Your task to perform on an android device: Open accessibility settings Image 0: 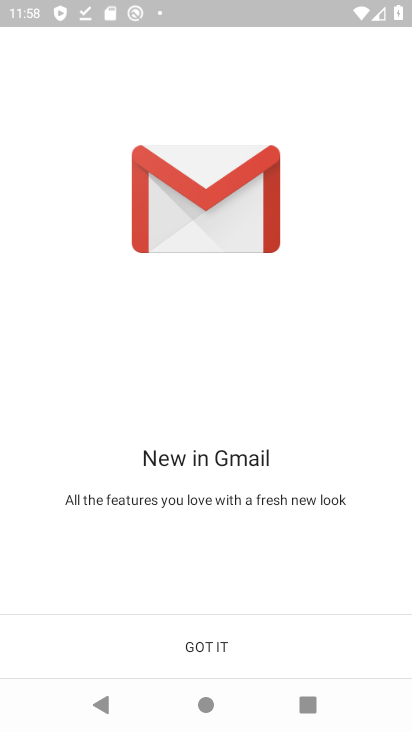
Step 0: press back button
Your task to perform on an android device: Open accessibility settings Image 1: 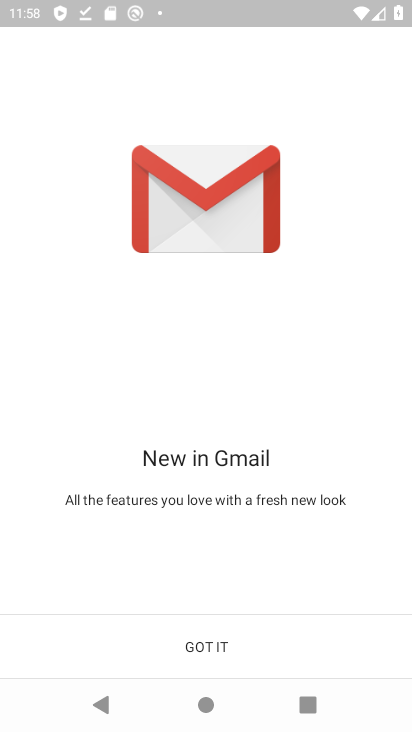
Step 1: press back button
Your task to perform on an android device: Open accessibility settings Image 2: 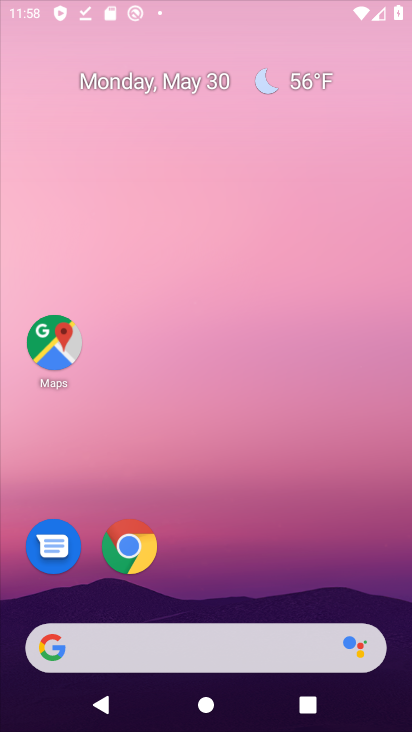
Step 2: press home button
Your task to perform on an android device: Open accessibility settings Image 3: 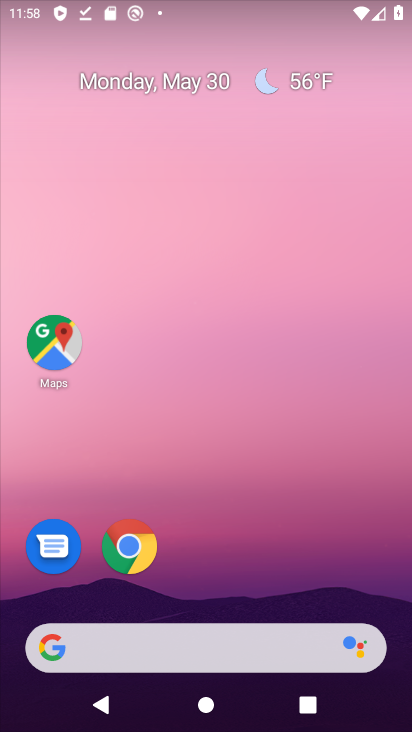
Step 3: press home button
Your task to perform on an android device: Open accessibility settings Image 4: 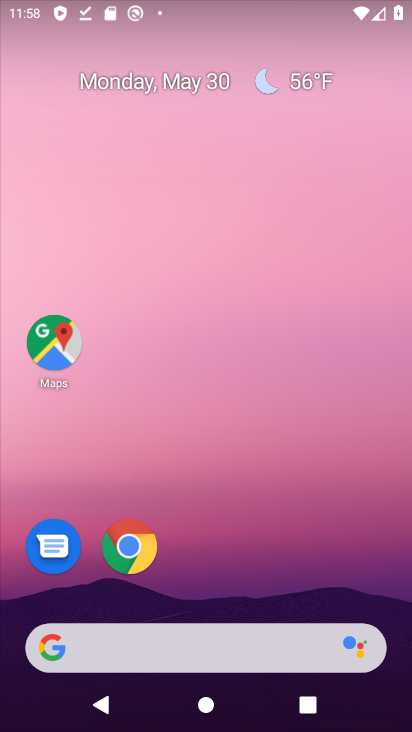
Step 4: press home button
Your task to perform on an android device: Open accessibility settings Image 5: 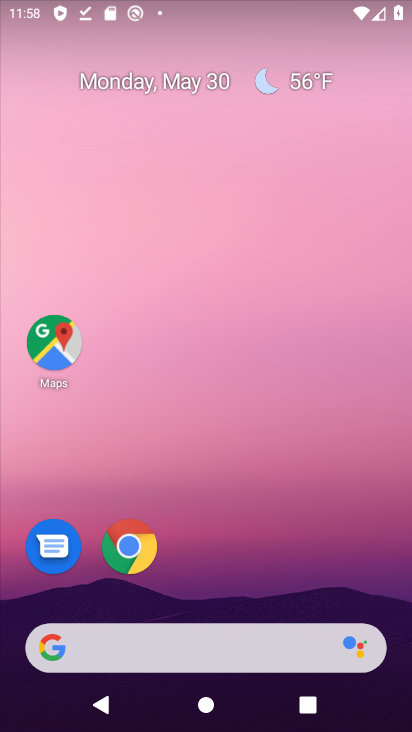
Step 5: press home button
Your task to perform on an android device: Open accessibility settings Image 6: 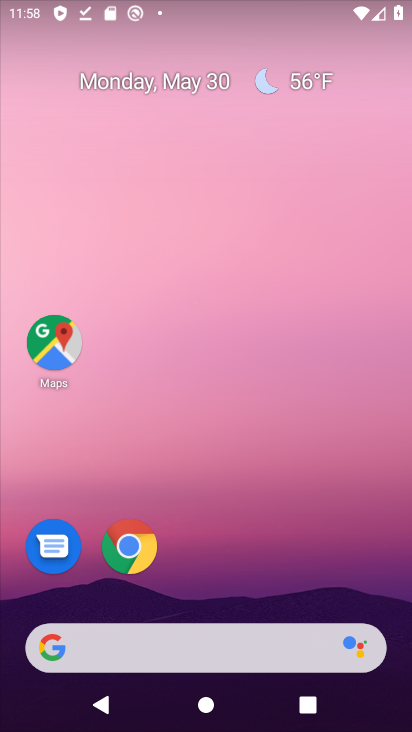
Step 6: press home button
Your task to perform on an android device: Open accessibility settings Image 7: 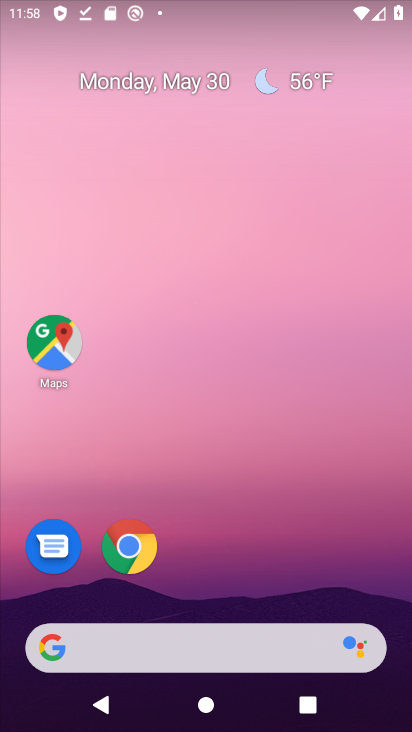
Step 7: press home button
Your task to perform on an android device: Open accessibility settings Image 8: 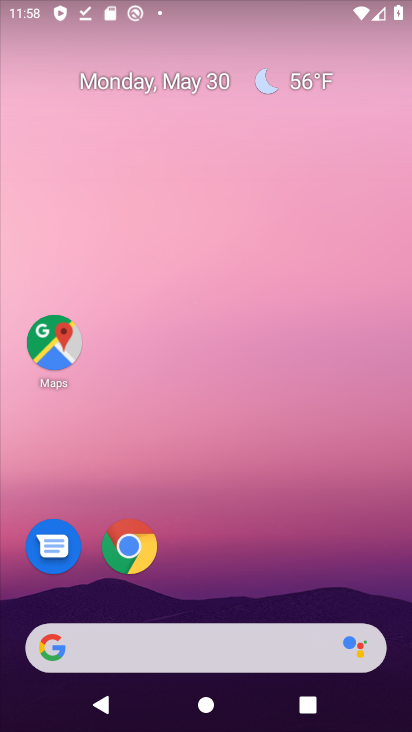
Step 8: press home button
Your task to perform on an android device: Open accessibility settings Image 9: 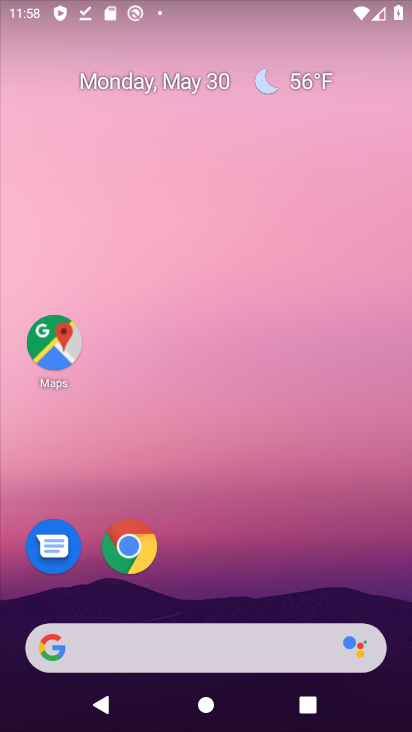
Step 9: press home button
Your task to perform on an android device: Open accessibility settings Image 10: 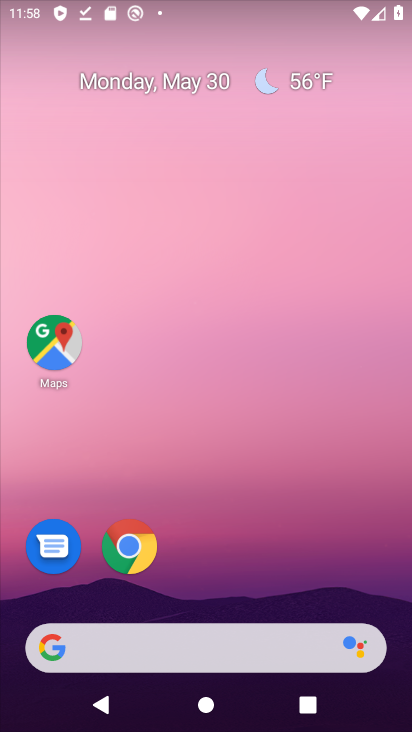
Step 10: drag from (269, 688) to (149, 83)
Your task to perform on an android device: Open accessibility settings Image 11: 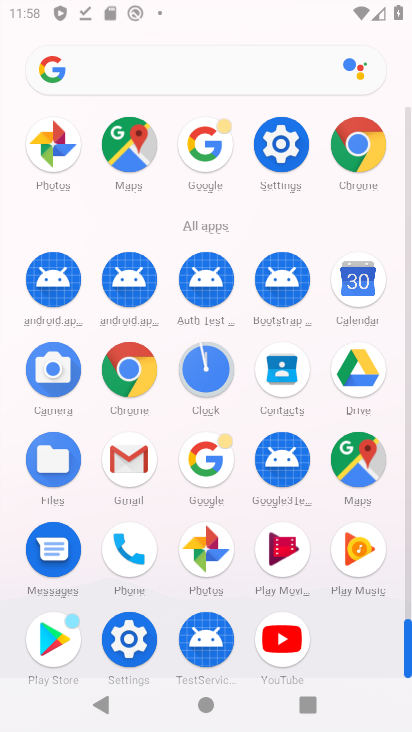
Step 11: drag from (272, 491) to (247, 76)
Your task to perform on an android device: Open accessibility settings Image 12: 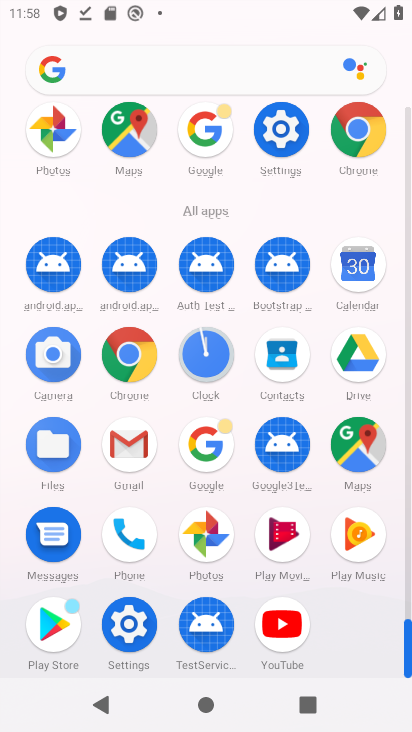
Step 12: click (287, 135)
Your task to perform on an android device: Open accessibility settings Image 13: 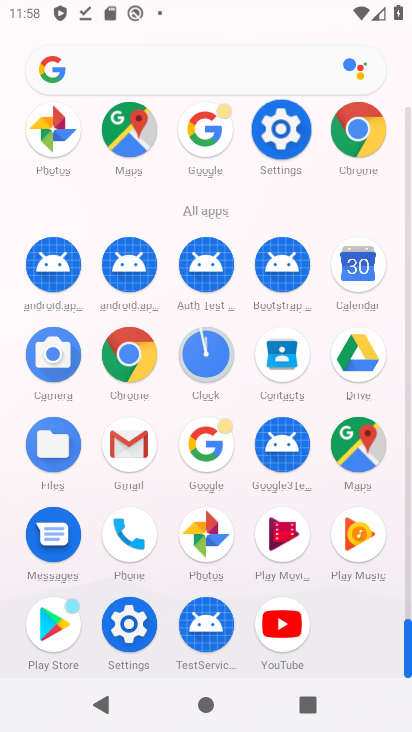
Step 13: click (287, 135)
Your task to perform on an android device: Open accessibility settings Image 14: 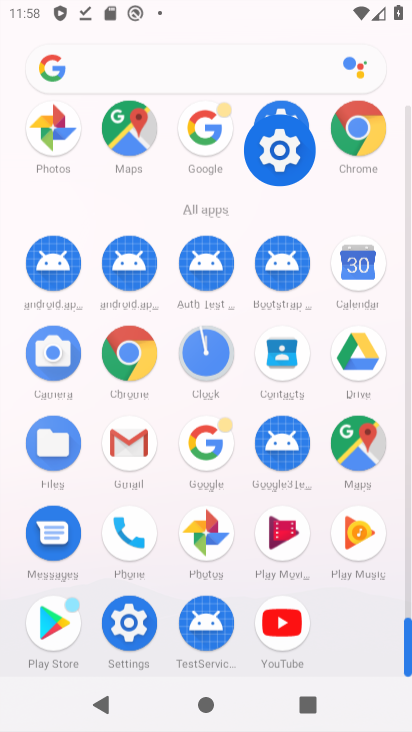
Step 14: click (288, 135)
Your task to perform on an android device: Open accessibility settings Image 15: 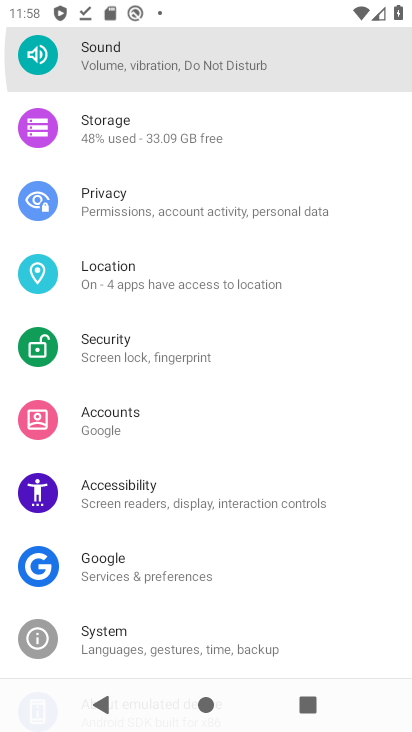
Step 15: click (288, 135)
Your task to perform on an android device: Open accessibility settings Image 16: 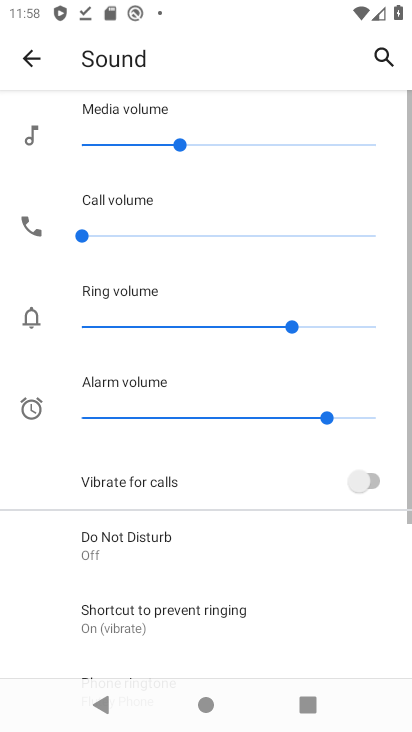
Step 16: click (27, 56)
Your task to perform on an android device: Open accessibility settings Image 17: 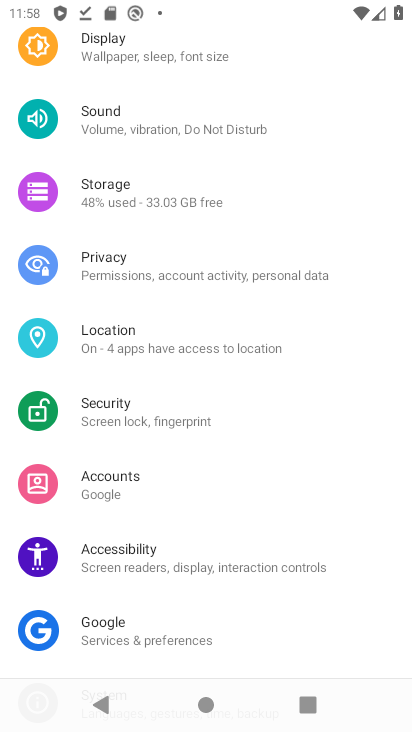
Step 17: click (111, 559)
Your task to perform on an android device: Open accessibility settings Image 18: 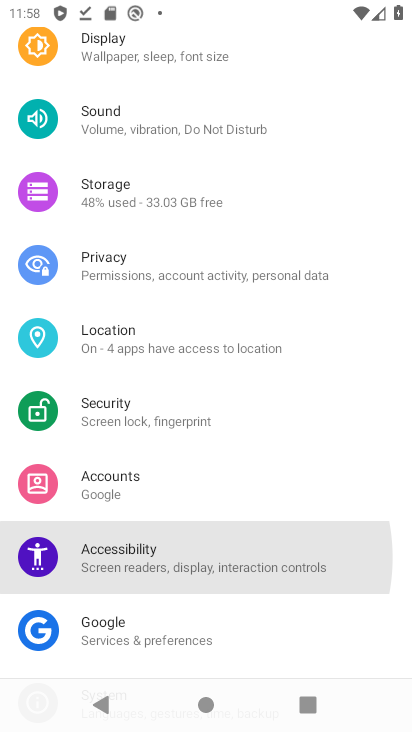
Step 18: click (111, 559)
Your task to perform on an android device: Open accessibility settings Image 19: 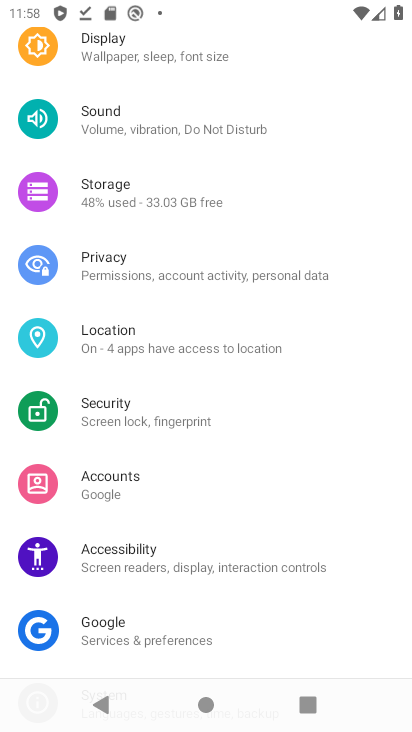
Step 19: click (107, 558)
Your task to perform on an android device: Open accessibility settings Image 20: 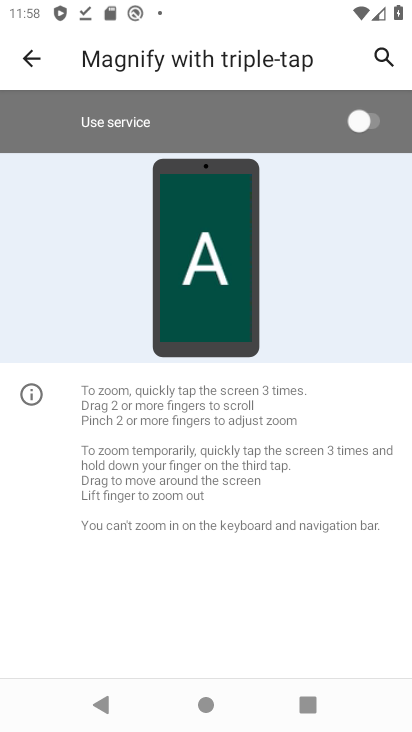
Step 20: task complete